Your task to perform on an android device: Find coffee shops on Maps Image 0: 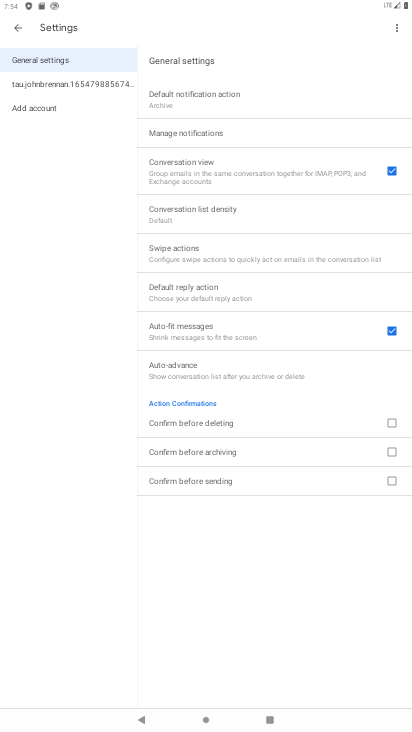
Step 0: click (14, 31)
Your task to perform on an android device: Find coffee shops on Maps Image 1: 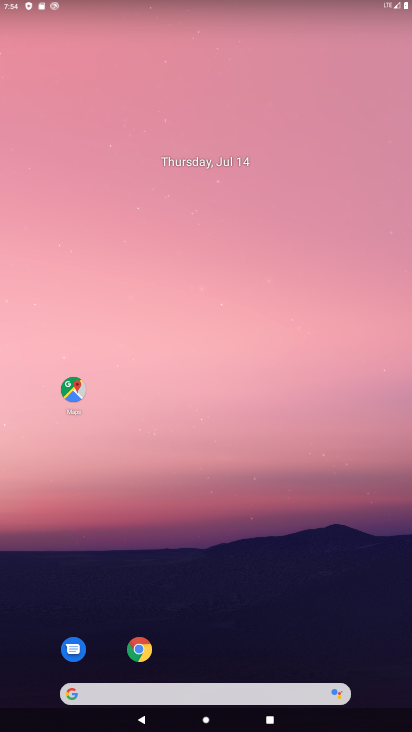
Step 1: click (70, 384)
Your task to perform on an android device: Find coffee shops on Maps Image 2: 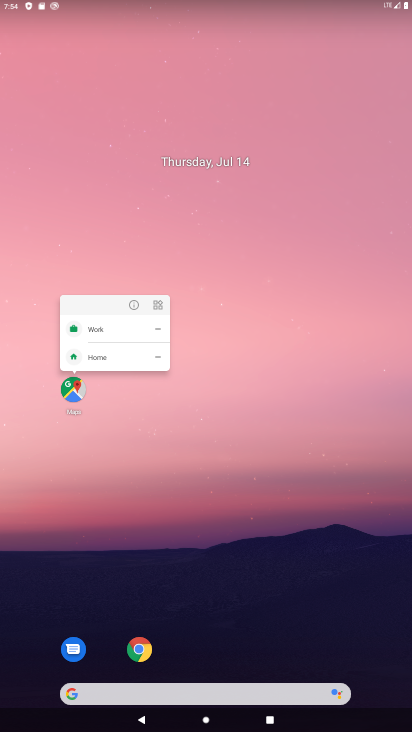
Step 2: click (72, 384)
Your task to perform on an android device: Find coffee shops on Maps Image 3: 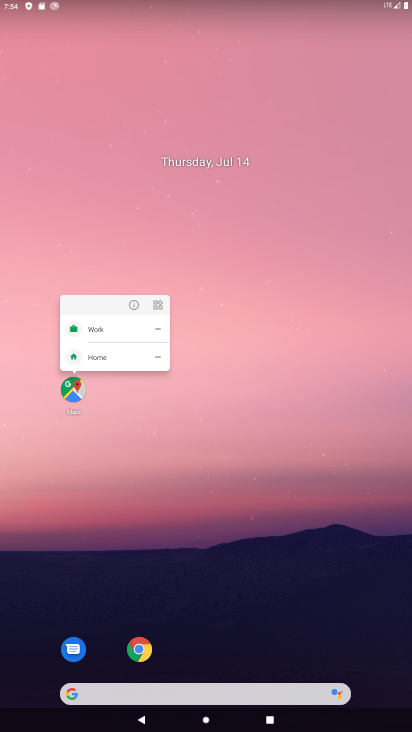
Step 3: click (72, 384)
Your task to perform on an android device: Find coffee shops on Maps Image 4: 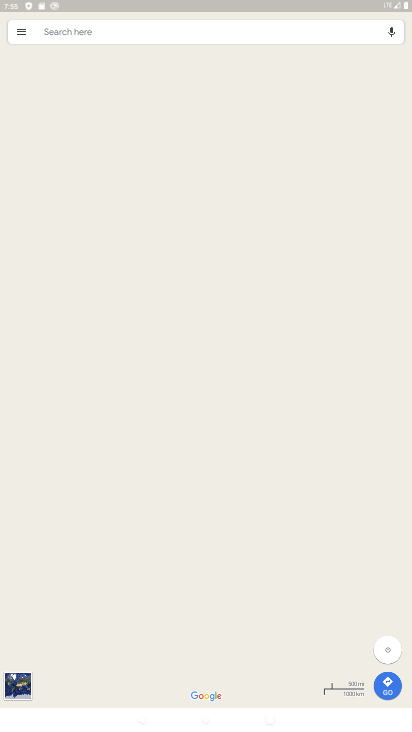
Step 4: click (179, 34)
Your task to perform on an android device: Find coffee shops on Maps Image 5: 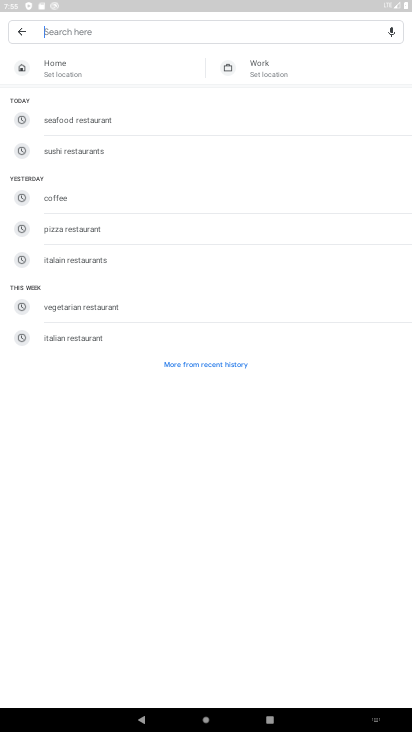
Step 5: type "coffee shops "
Your task to perform on an android device: Find coffee shops on Maps Image 6: 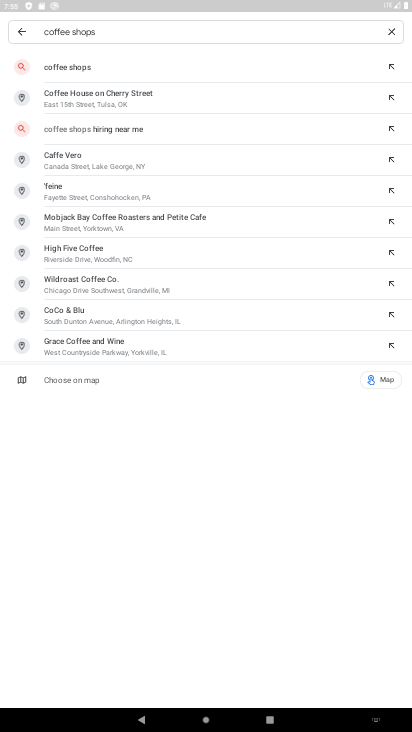
Step 6: click (197, 59)
Your task to perform on an android device: Find coffee shops on Maps Image 7: 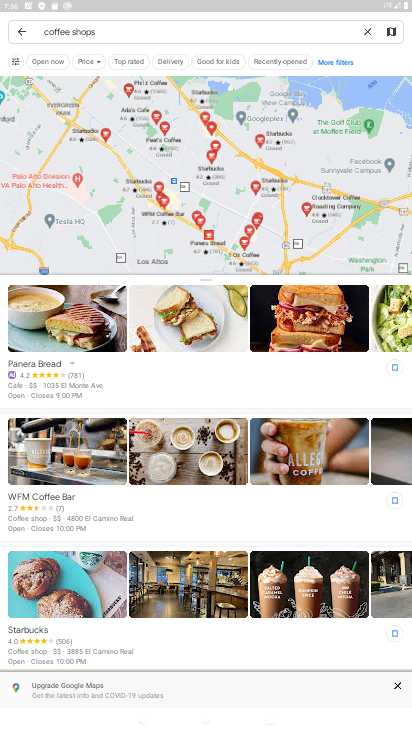
Step 7: task complete